Your task to perform on an android device: Open Google Chrome and click the shortcut for Amazon.com Image 0: 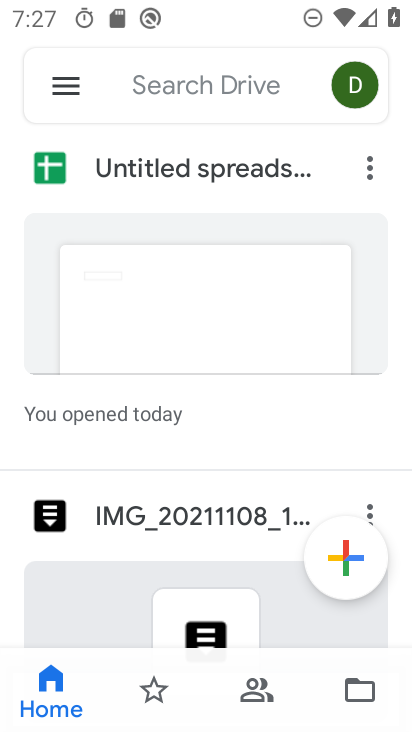
Step 0: press home button
Your task to perform on an android device: Open Google Chrome and click the shortcut for Amazon.com Image 1: 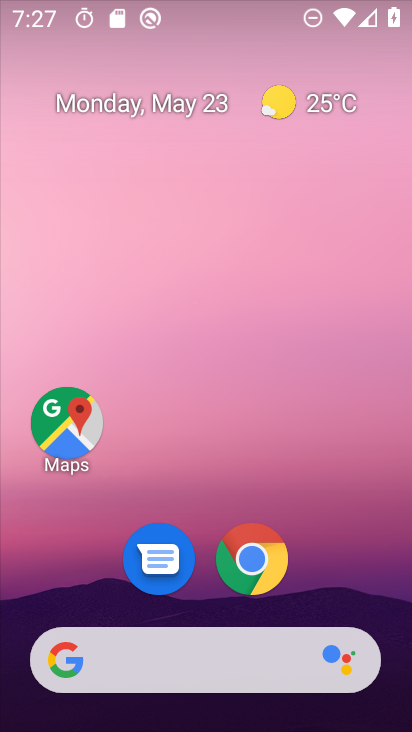
Step 1: drag from (372, 607) to (245, 38)
Your task to perform on an android device: Open Google Chrome and click the shortcut for Amazon.com Image 2: 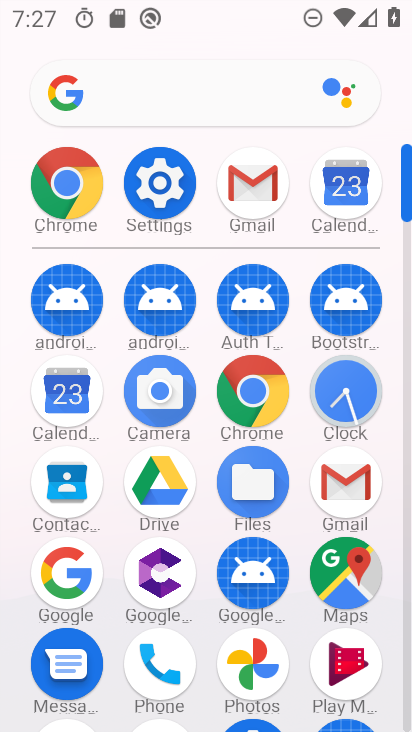
Step 2: click (84, 188)
Your task to perform on an android device: Open Google Chrome and click the shortcut for Amazon.com Image 3: 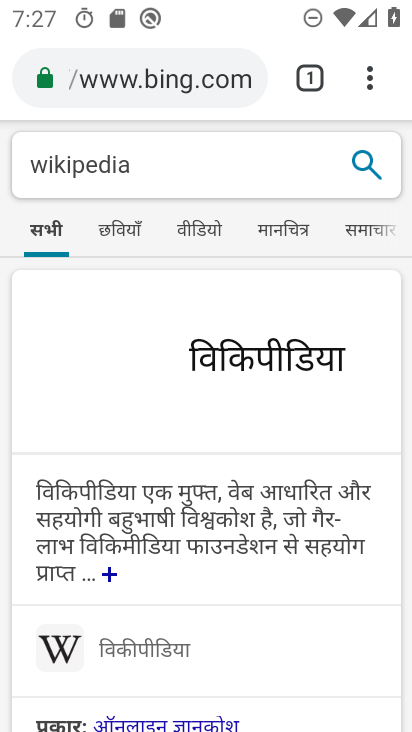
Step 3: press back button
Your task to perform on an android device: Open Google Chrome and click the shortcut for Amazon.com Image 4: 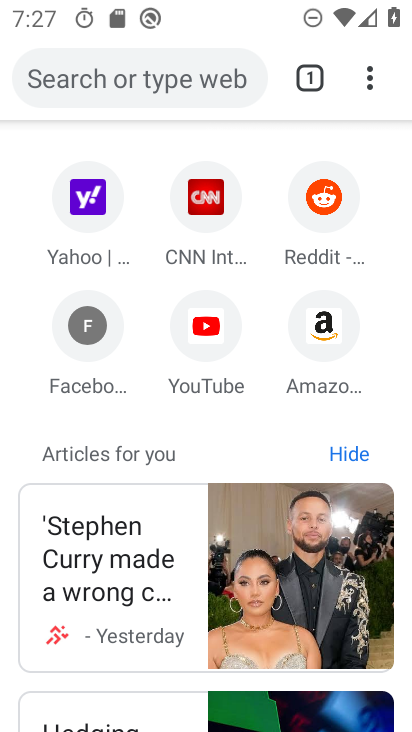
Step 4: click (326, 335)
Your task to perform on an android device: Open Google Chrome and click the shortcut for Amazon.com Image 5: 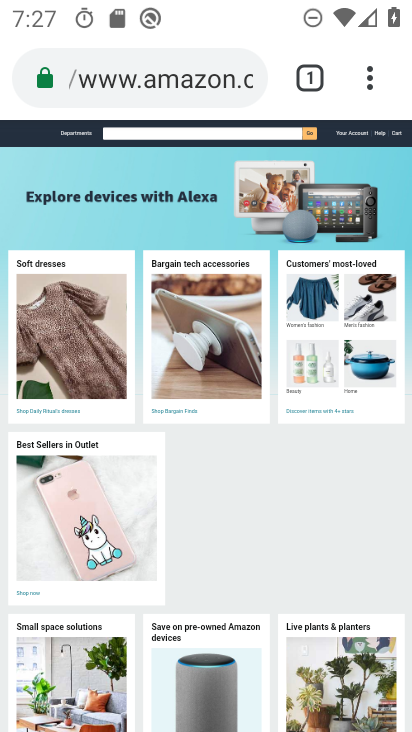
Step 5: task complete